Your task to perform on an android device: What is the recent news? Image 0: 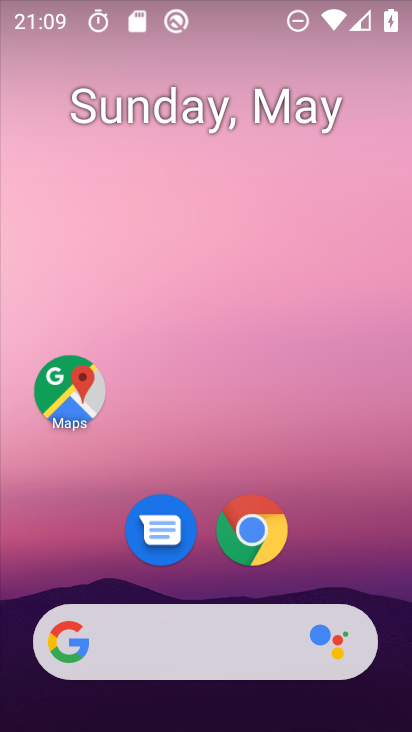
Step 0: drag from (198, 674) to (364, 19)
Your task to perform on an android device: What is the recent news? Image 1: 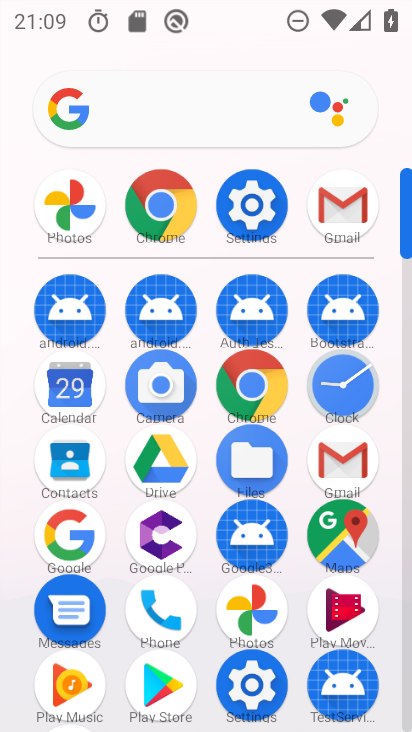
Step 1: click (161, 118)
Your task to perform on an android device: What is the recent news? Image 2: 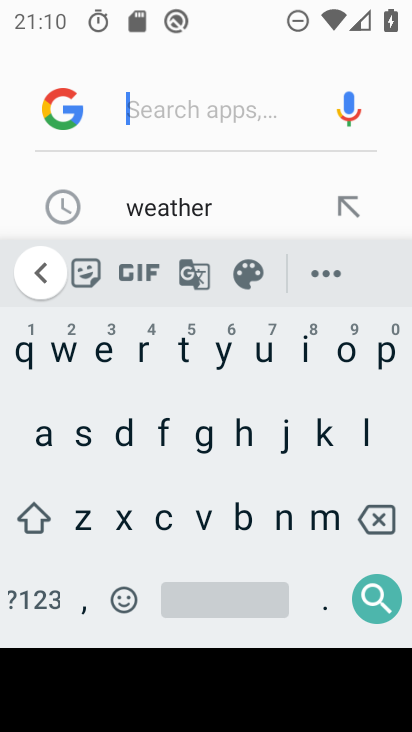
Step 2: click (142, 348)
Your task to perform on an android device: What is the recent news? Image 3: 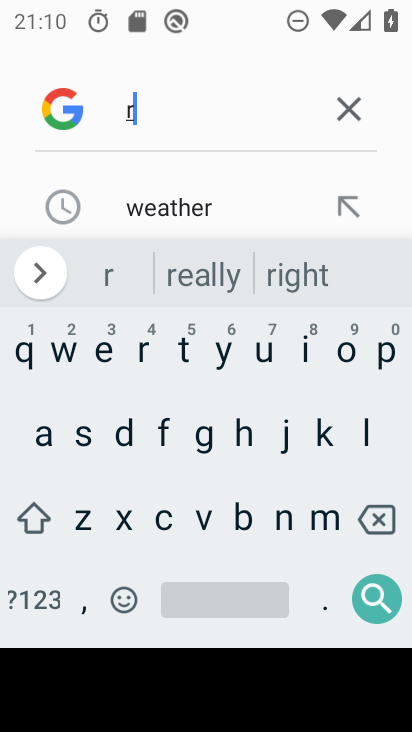
Step 3: click (101, 351)
Your task to perform on an android device: What is the recent news? Image 4: 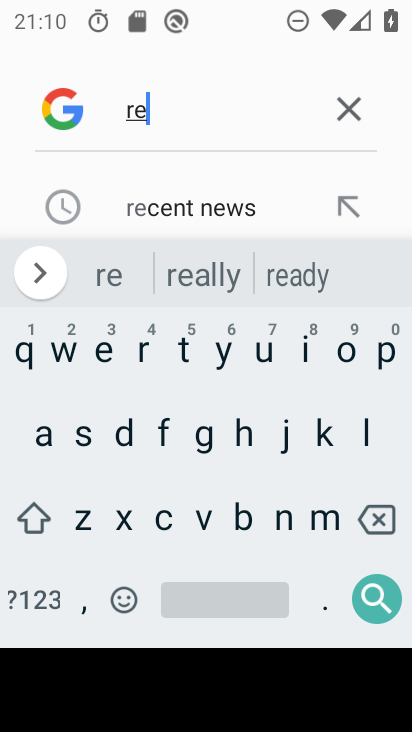
Step 4: click (194, 209)
Your task to perform on an android device: What is the recent news? Image 5: 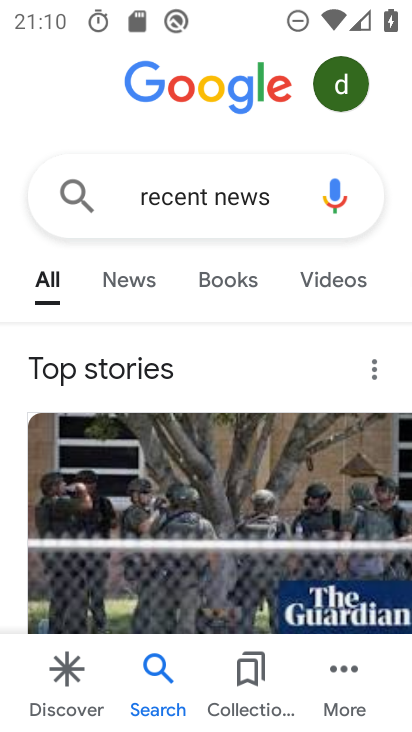
Step 5: task complete